Your task to perform on an android device: What's the weather going to be this weekend? Image 0: 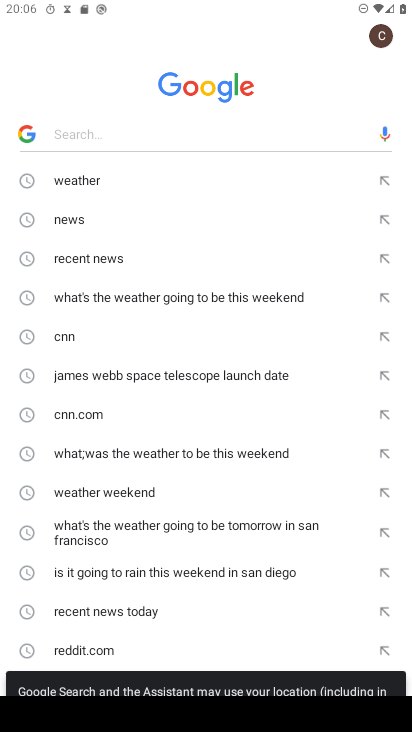
Step 0: press home button
Your task to perform on an android device: What's the weather going to be this weekend? Image 1: 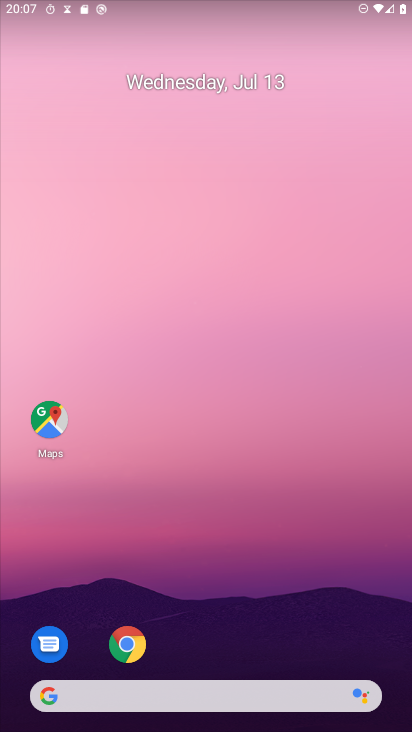
Step 1: click (267, 680)
Your task to perform on an android device: What's the weather going to be this weekend? Image 2: 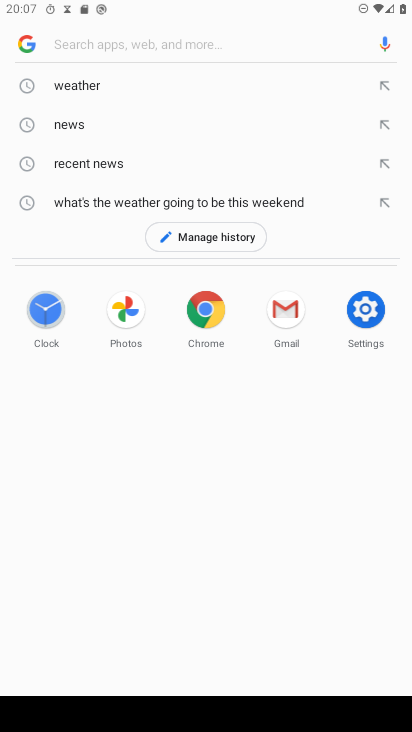
Step 2: type "What's the weather going to be this weekend?"
Your task to perform on an android device: What's the weather going to be this weekend? Image 3: 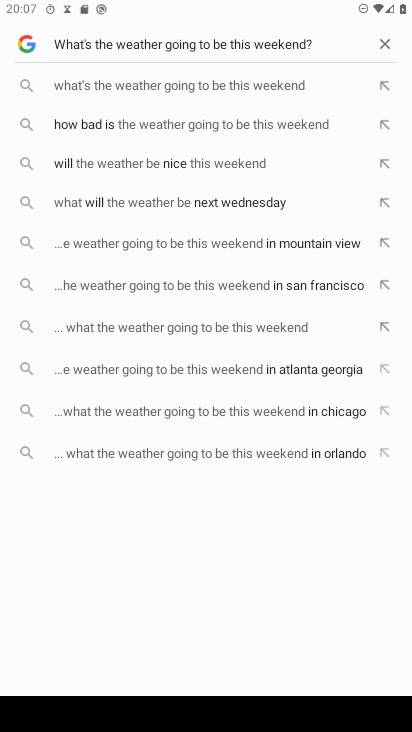
Step 3: click (260, 88)
Your task to perform on an android device: What's the weather going to be this weekend? Image 4: 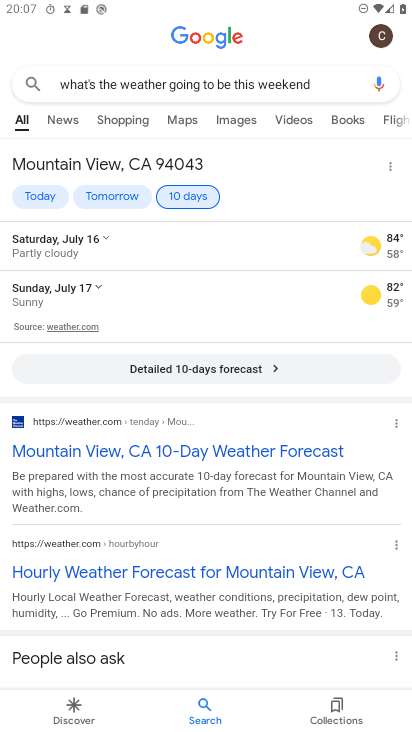
Step 4: task complete